Your task to perform on an android device: See recent photos Image 0: 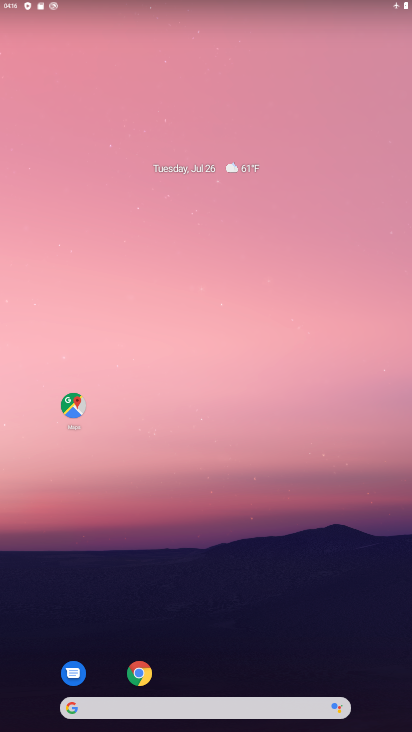
Step 0: drag from (186, 673) to (71, 19)
Your task to perform on an android device: See recent photos Image 1: 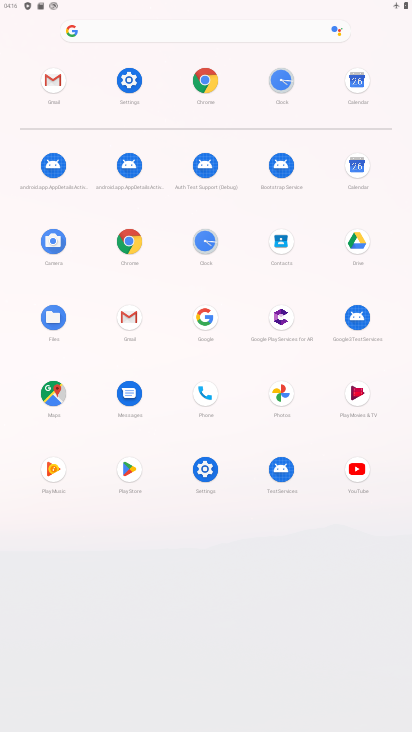
Step 1: click (277, 389)
Your task to perform on an android device: See recent photos Image 2: 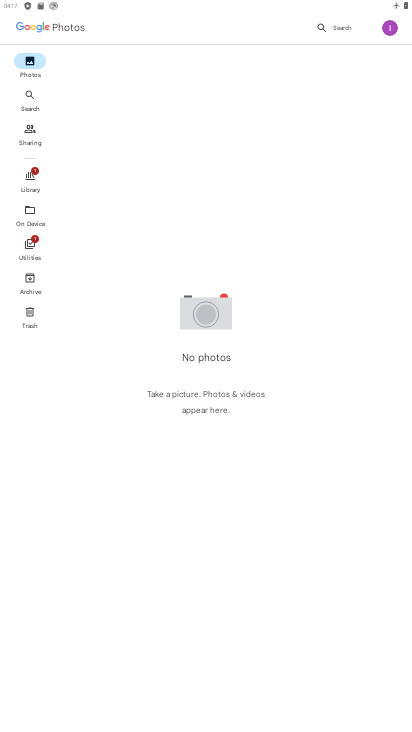
Step 2: task complete